Your task to perform on an android device: see sites visited before in the chrome app Image 0: 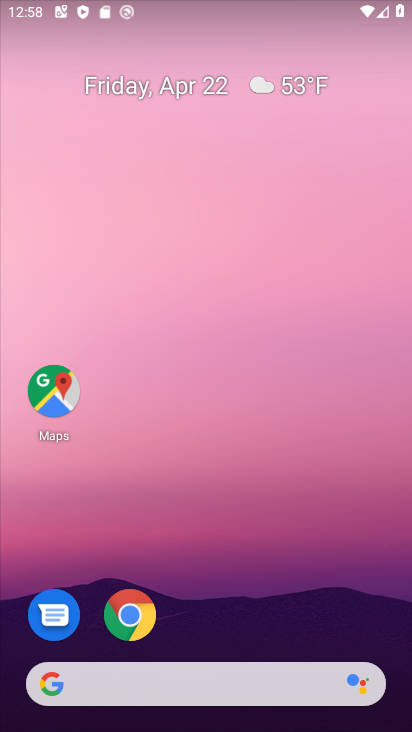
Step 0: click (129, 624)
Your task to perform on an android device: see sites visited before in the chrome app Image 1: 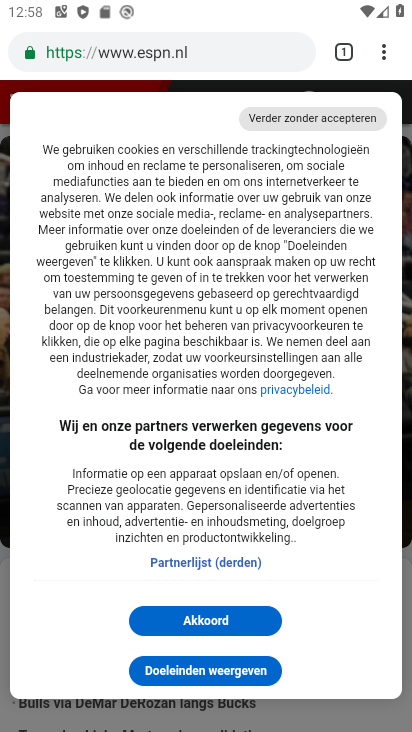
Step 1: click (384, 54)
Your task to perform on an android device: see sites visited before in the chrome app Image 2: 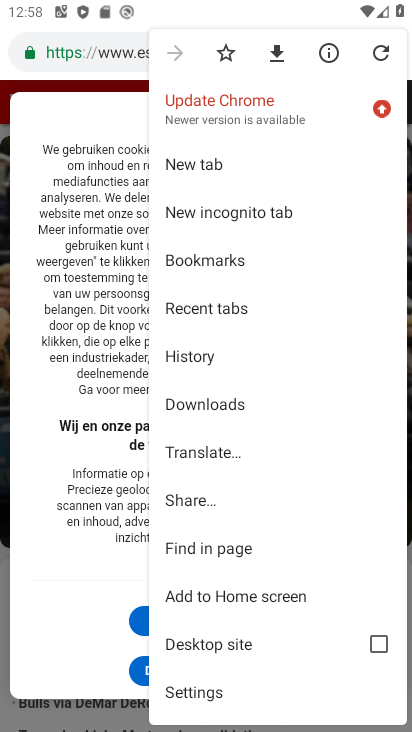
Step 2: click (207, 359)
Your task to perform on an android device: see sites visited before in the chrome app Image 3: 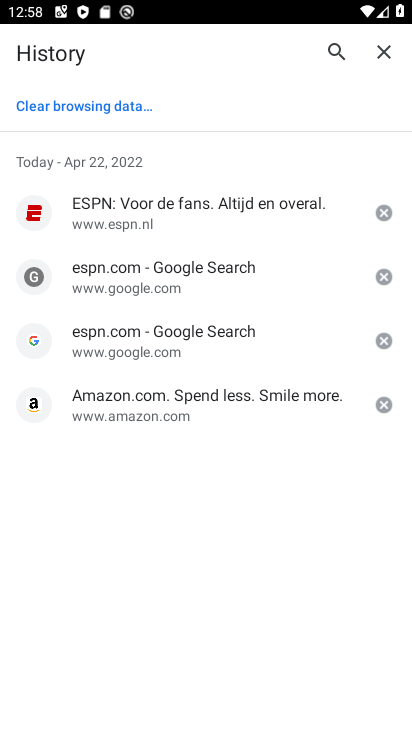
Step 3: task complete